Your task to perform on an android device: When is my next appointment? Image 0: 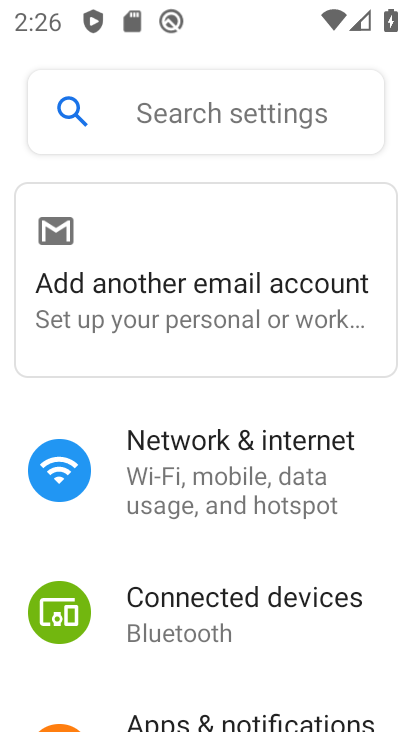
Step 0: press home button
Your task to perform on an android device: When is my next appointment? Image 1: 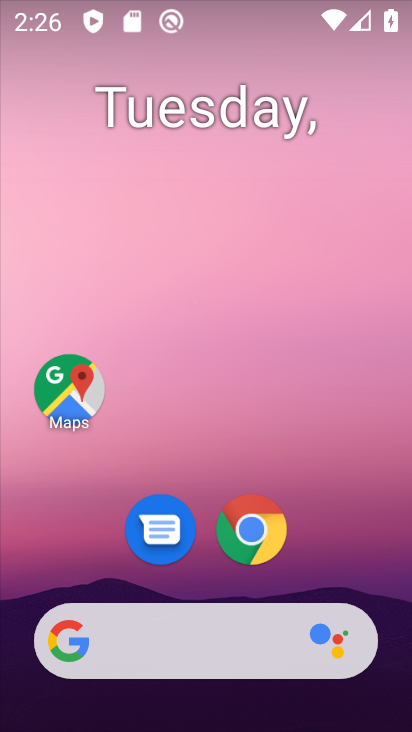
Step 1: drag from (389, 630) to (274, 136)
Your task to perform on an android device: When is my next appointment? Image 2: 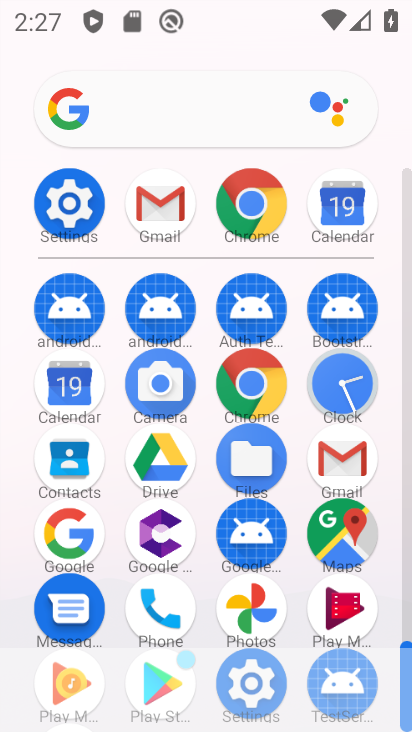
Step 2: click (58, 389)
Your task to perform on an android device: When is my next appointment? Image 3: 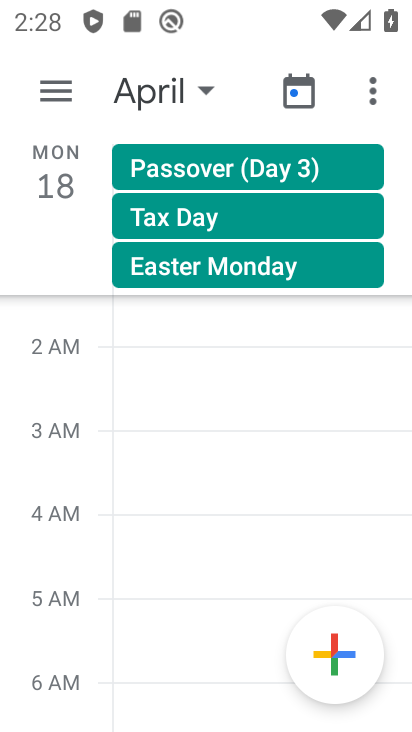
Step 3: task complete